Your task to perform on an android device: Do I have any events tomorrow? Image 0: 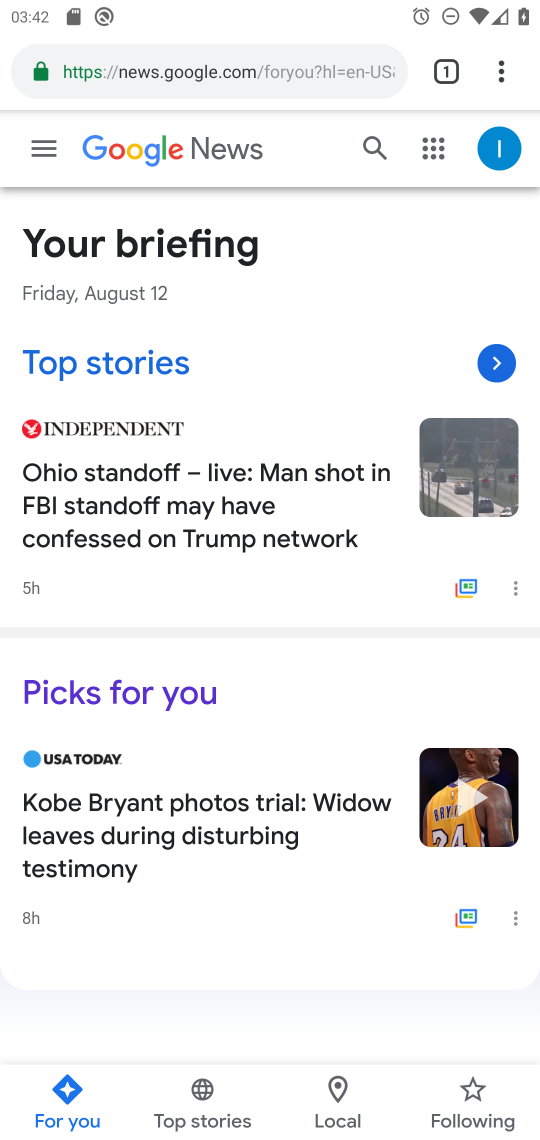
Step 0: press home button
Your task to perform on an android device: Do I have any events tomorrow? Image 1: 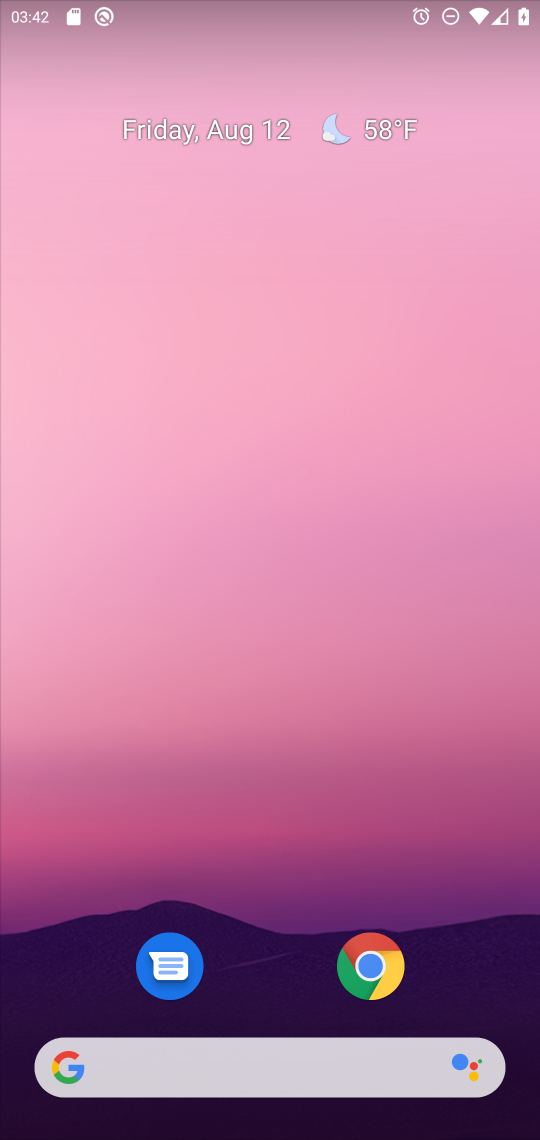
Step 1: drag from (289, 742) to (389, 48)
Your task to perform on an android device: Do I have any events tomorrow? Image 2: 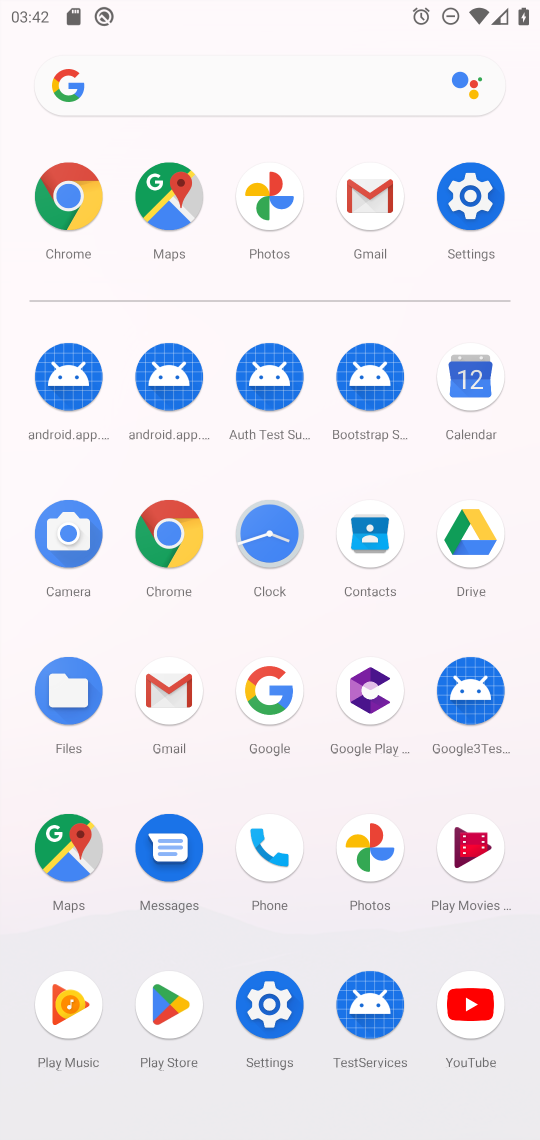
Step 2: click (457, 366)
Your task to perform on an android device: Do I have any events tomorrow? Image 3: 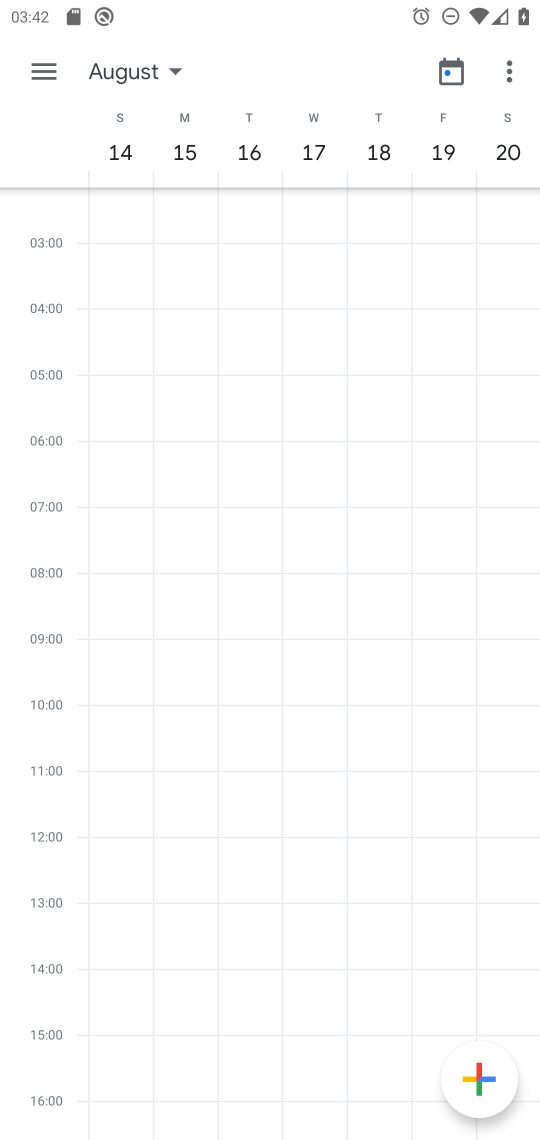
Step 3: click (165, 77)
Your task to perform on an android device: Do I have any events tomorrow? Image 4: 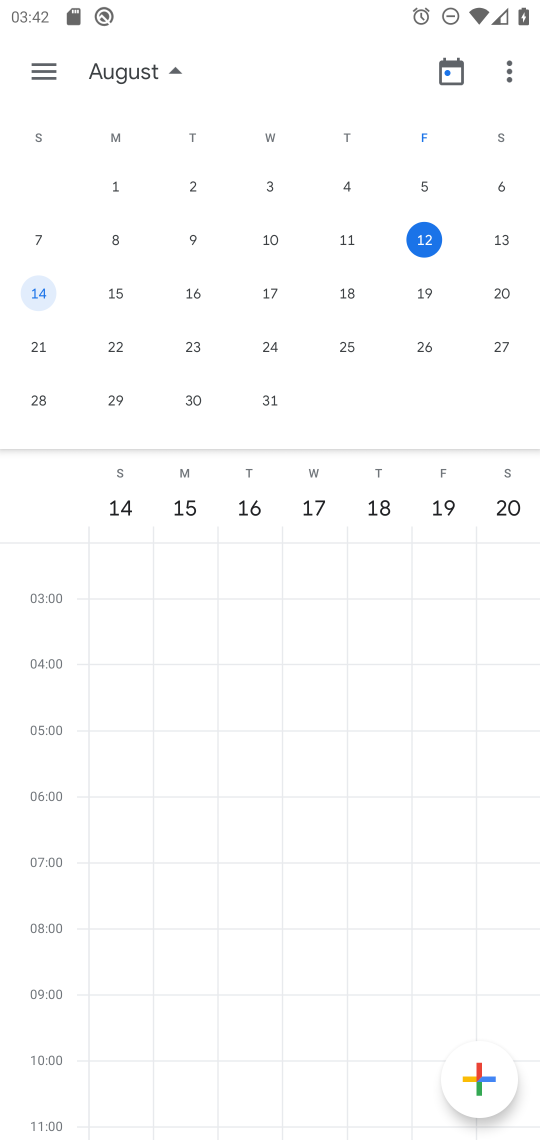
Step 4: click (503, 242)
Your task to perform on an android device: Do I have any events tomorrow? Image 5: 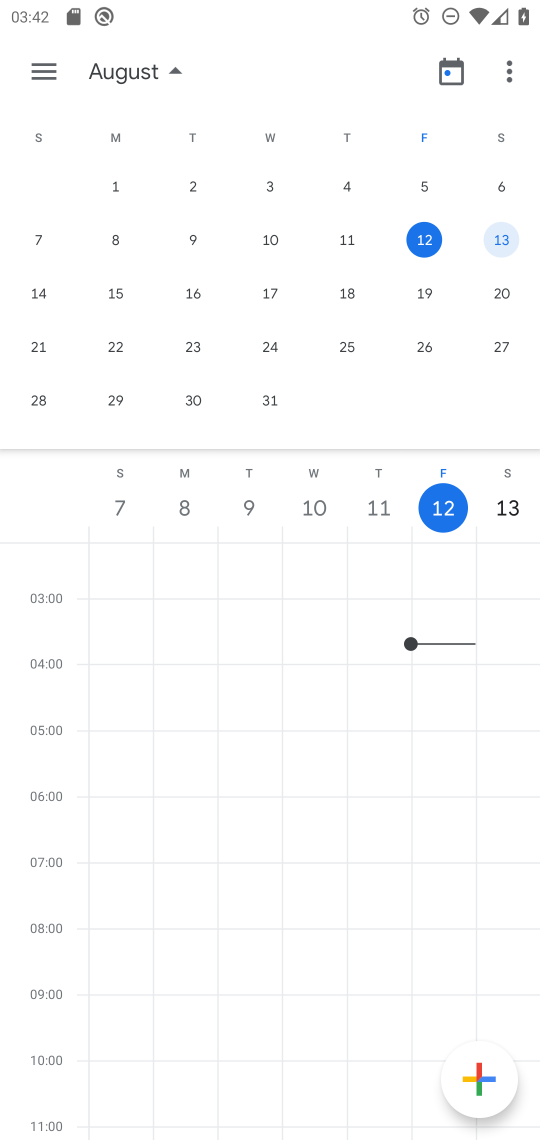
Step 5: click (519, 510)
Your task to perform on an android device: Do I have any events tomorrow? Image 6: 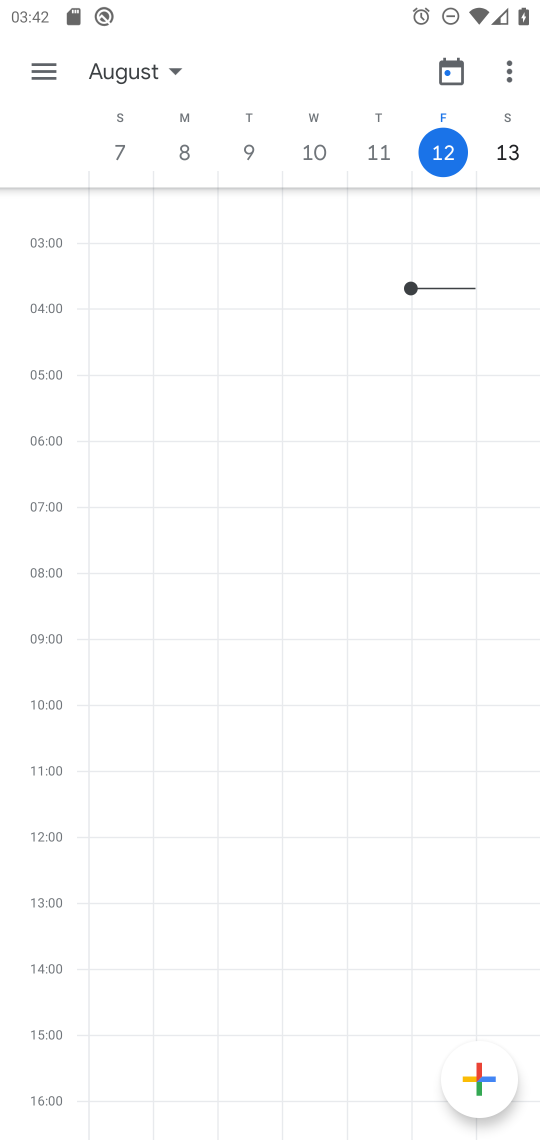
Step 6: click (513, 150)
Your task to perform on an android device: Do I have any events tomorrow? Image 7: 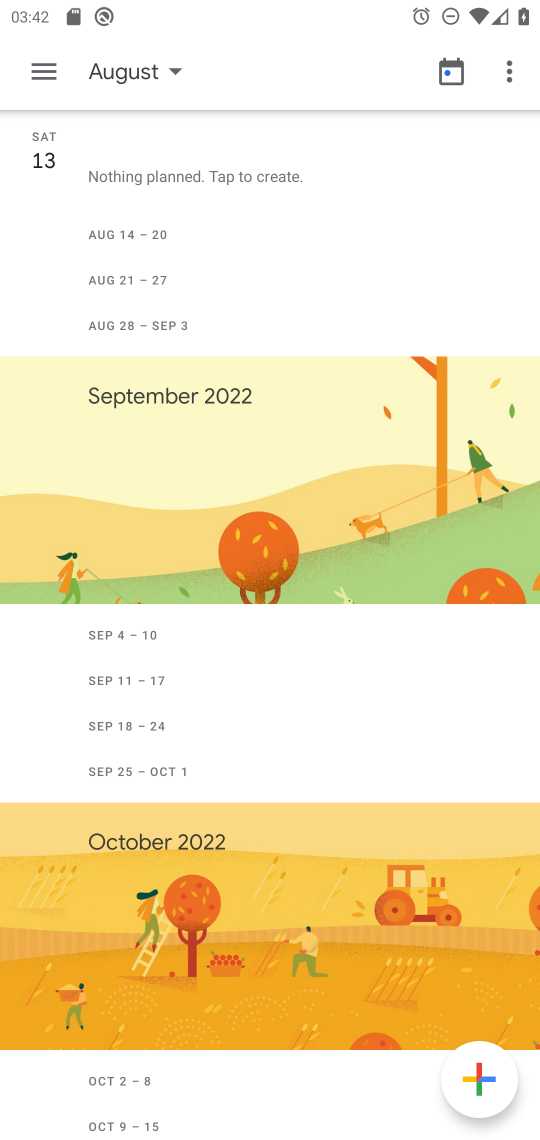
Step 7: task complete